Your task to perform on an android device: turn off wifi Image 0: 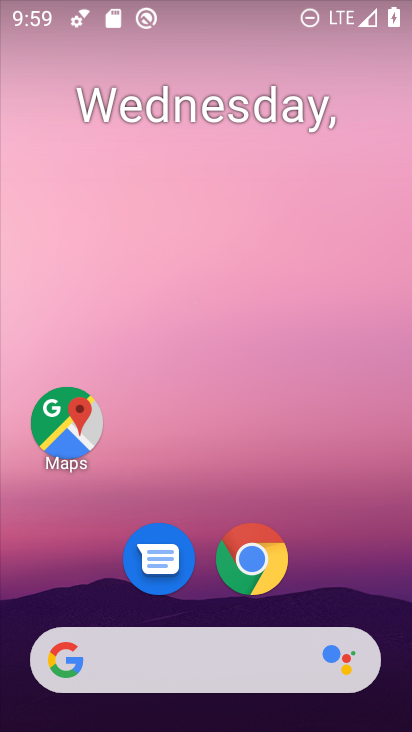
Step 0: drag from (245, 464) to (260, 49)
Your task to perform on an android device: turn off wifi Image 1: 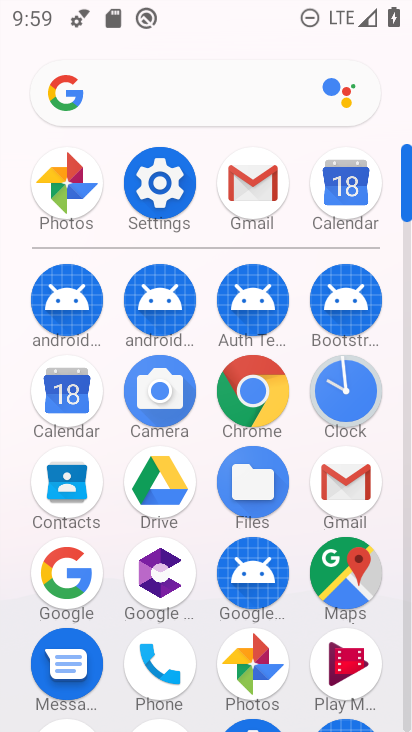
Step 1: click (169, 185)
Your task to perform on an android device: turn off wifi Image 2: 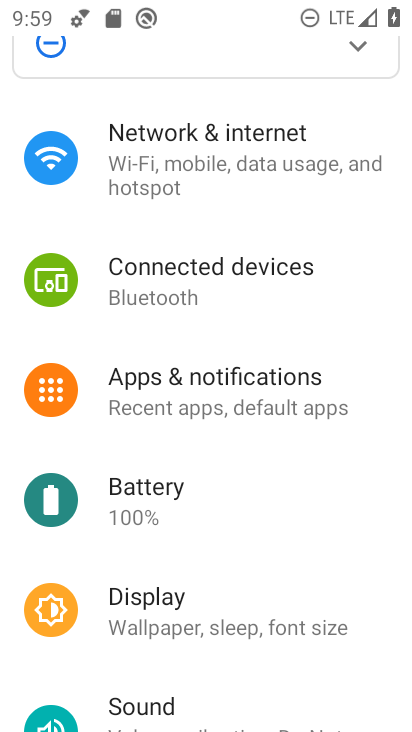
Step 2: click (195, 152)
Your task to perform on an android device: turn off wifi Image 3: 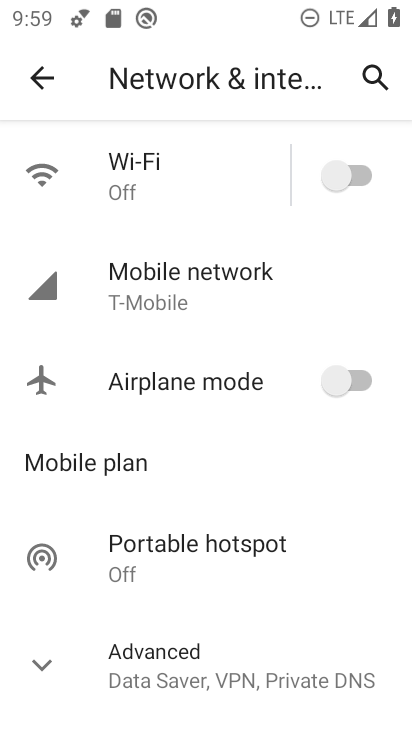
Step 3: task complete